Your task to perform on an android device: Open Android settings Image 0: 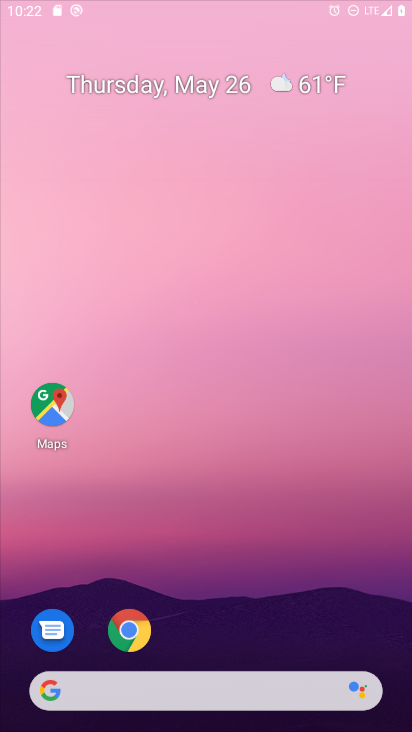
Step 0: drag from (190, 659) to (171, 125)
Your task to perform on an android device: Open Android settings Image 1: 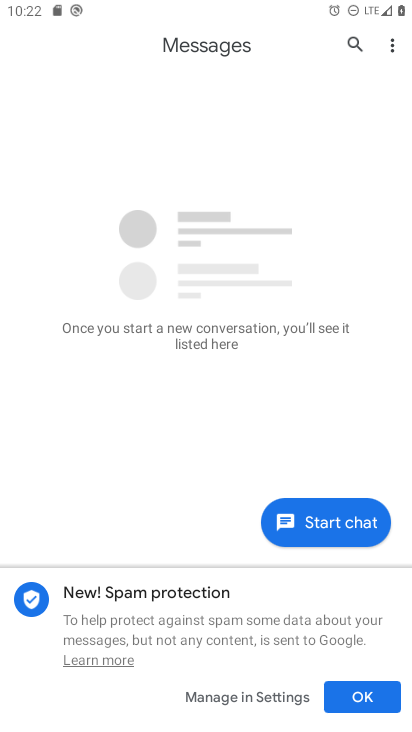
Step 1: press home button
Your task to perform on an android device: Open Android settings Image 2: 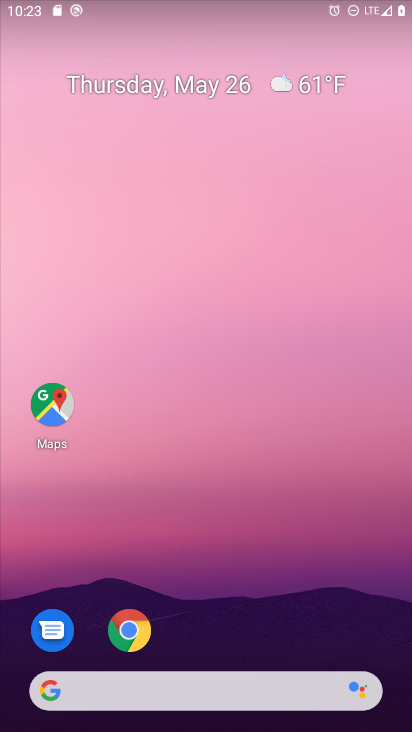
Step 2: drag from (203, 647) to (215, 147)
Your task to perform on an android device: Open Android settings Image 3: 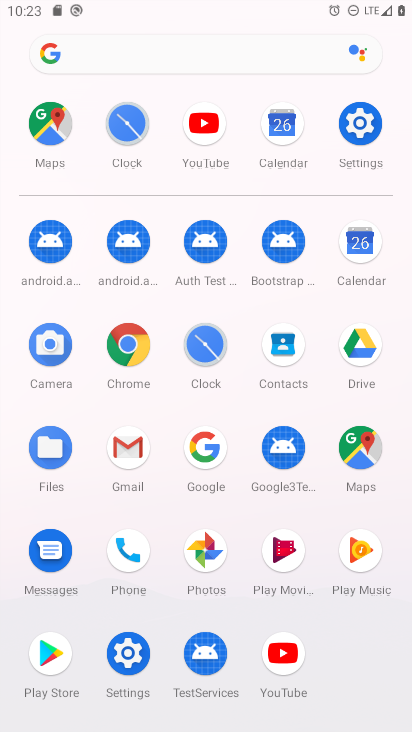
Step 3: click (368, 118)
Your task to perform on an android device: Open Android settings Image 4: 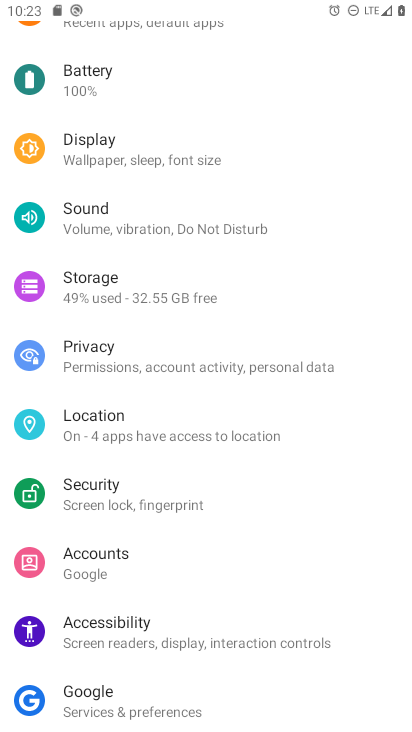
Step 4: task complete